Your task to perform on an android device: allow cookies in the chrome app Image 0: 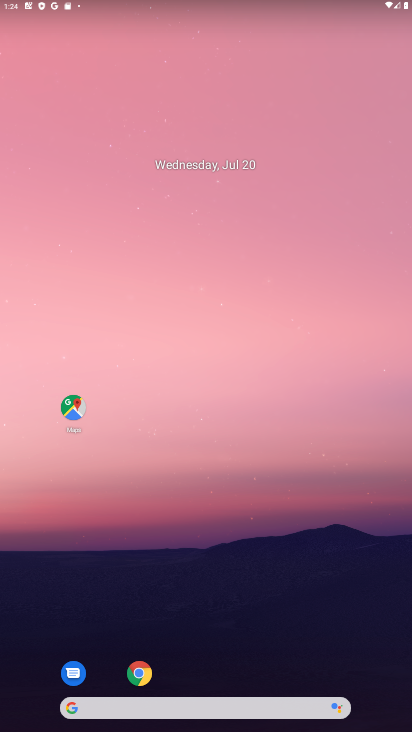
Step 0: drag from (269, 658) to (192, 200)
Your task to perform on an android device: allow cookies in the chrome app Image 1: 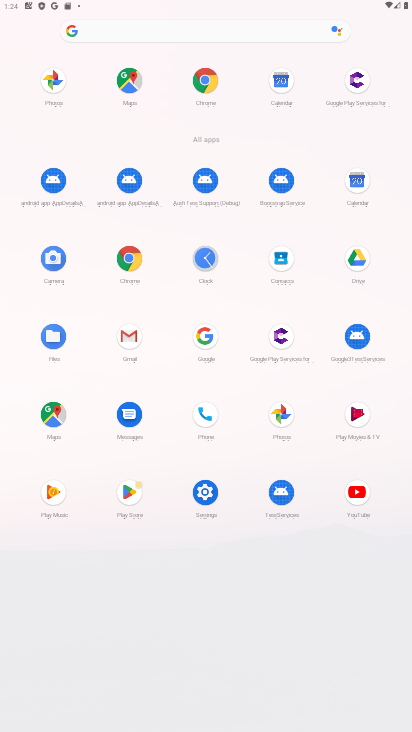
Step 1: click (207, 82)
Your task to perform on an android device: allow cookies in the chrome app Image 2: 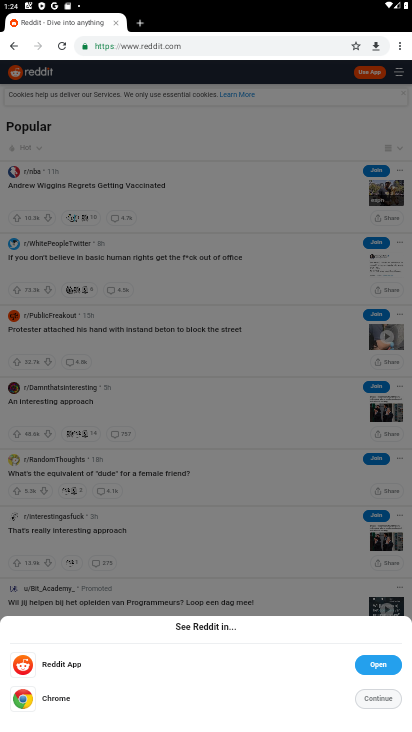
Step 2: click (401, 40)
Your task to perform on an android device: allow cookies in the chrome app Image 3: 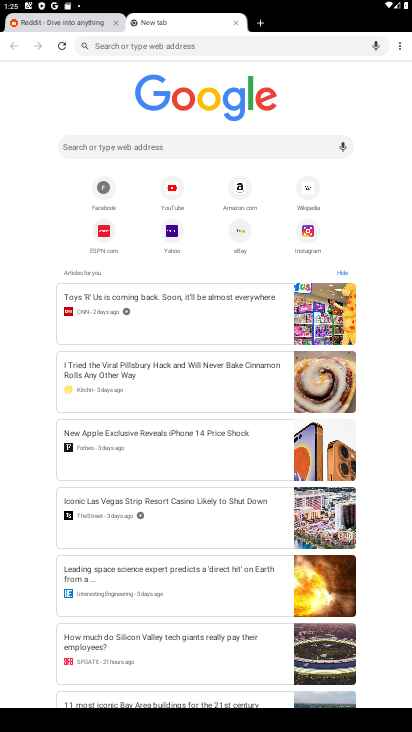
Step 3: click (398, 49)
Your task to perform on an android device: allow cookies in the chrome app Image 4: 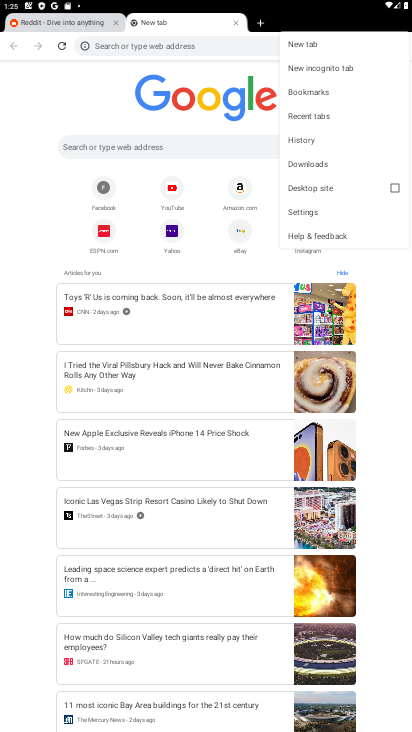
Step 4: click (321, 213)
Your task to perform on an android device: allow cookies in the chrome app Image 5: 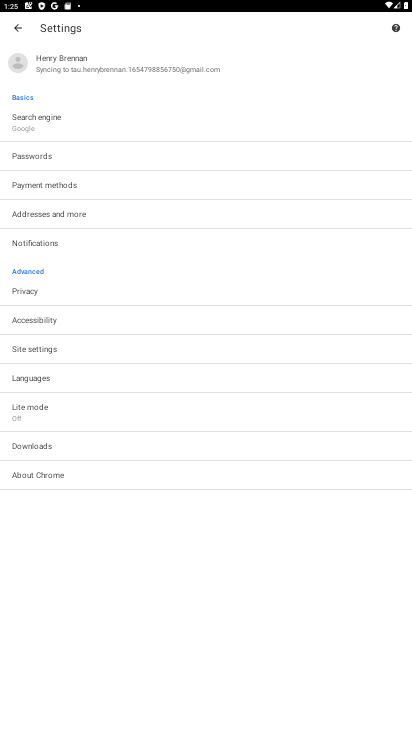
Step 5: click (92, 345)
Your task to perform on an android device: allow cookies in the chrome app Image 6: 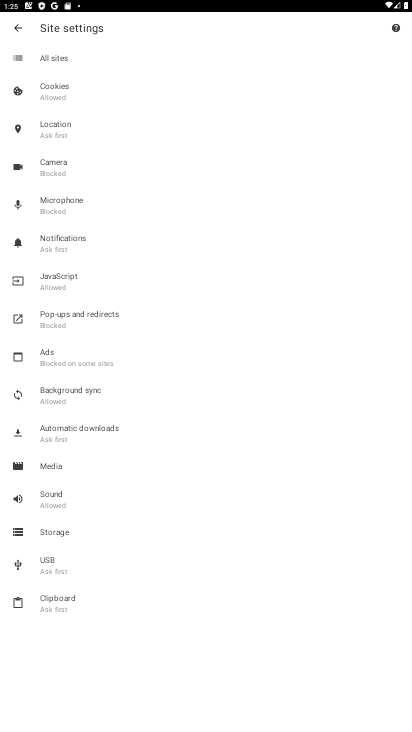
Step 6: click (158, 95)
Your task to perform on an android device: allow cookies in the chrome app Image 7: 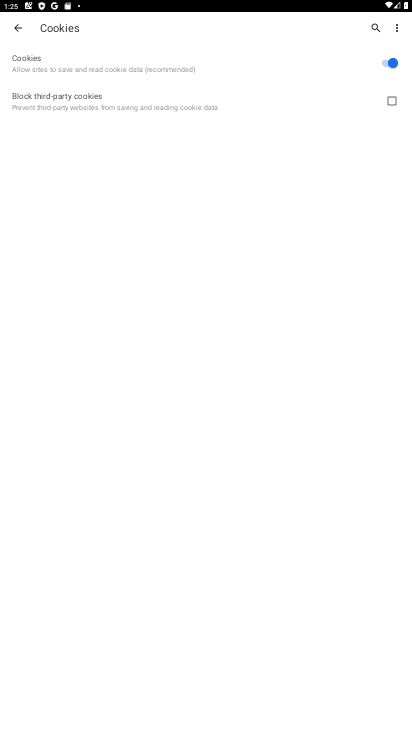
Step 7: task complete